Your task to perform on an android device: open wifi settings Image 0: 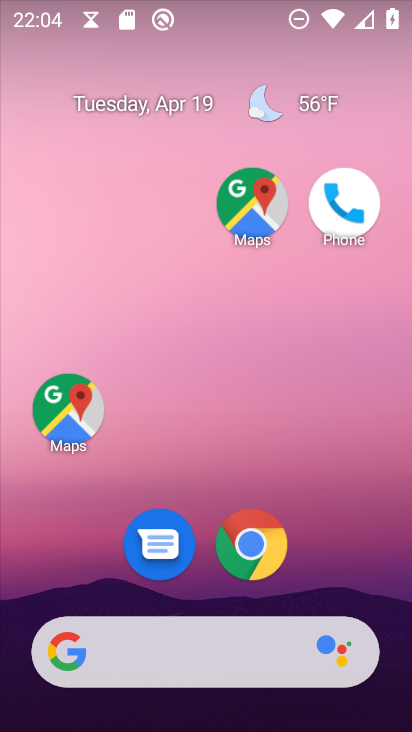
Step 0: drag from (164, 633) to (296, 49)
Your task to perform on an android device: open wifi settings Image 1: 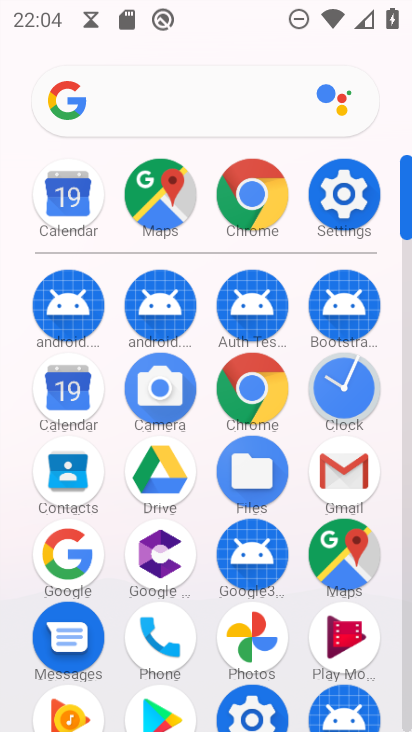
Step 1: click (345, 208)
Your task to perform on an android device: open wifi settings Image 2: 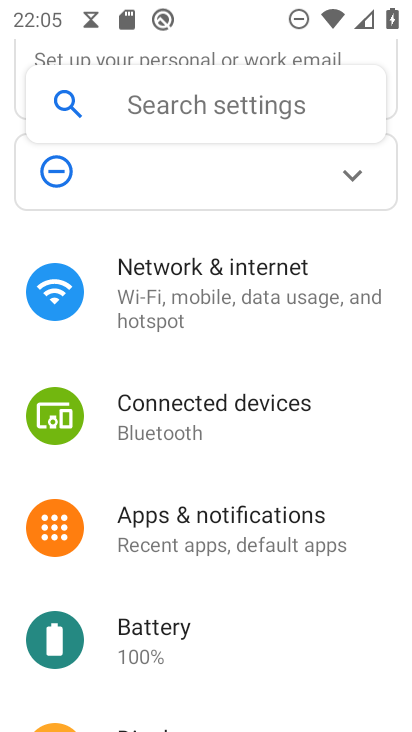
Step 2: click (221, 280)
Your task to perform on an android device: open wifi settings Image 3: 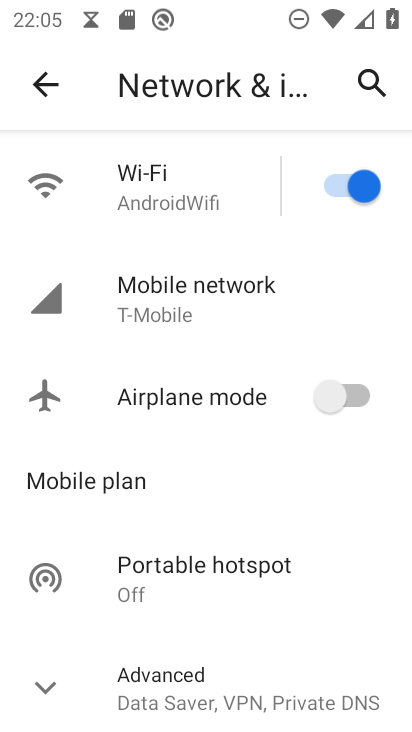
Step 3: click (157, 193)
Your task to perform on an android device: open wifi settings Image 4: 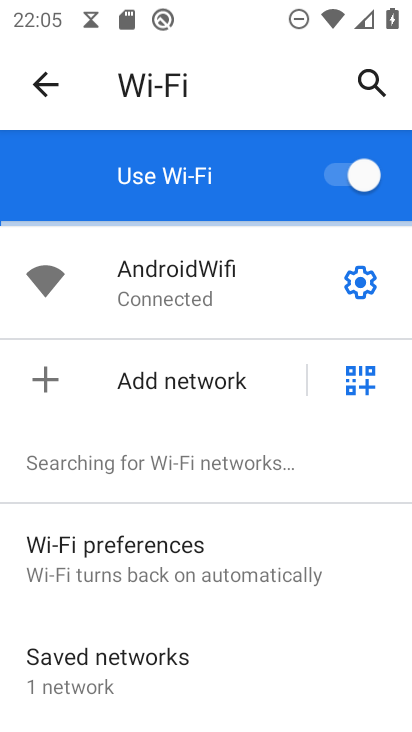
Step 4: task complete